Your task to perform on an android device: change the upload size in google photos Image 0: 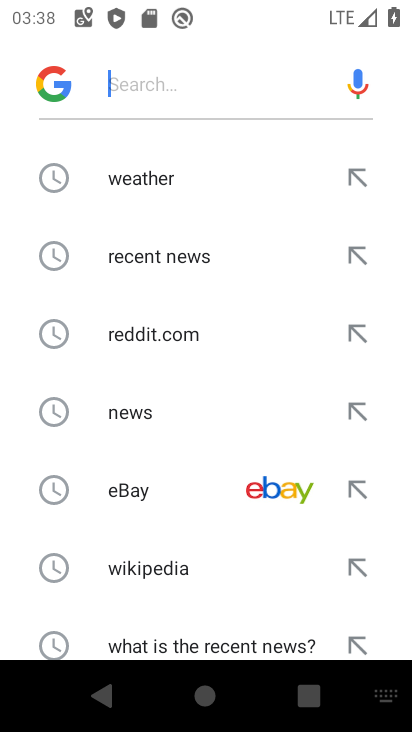
Step 0: press home button
Your task to perform on an android device: change the upload size in google photos Image 1: 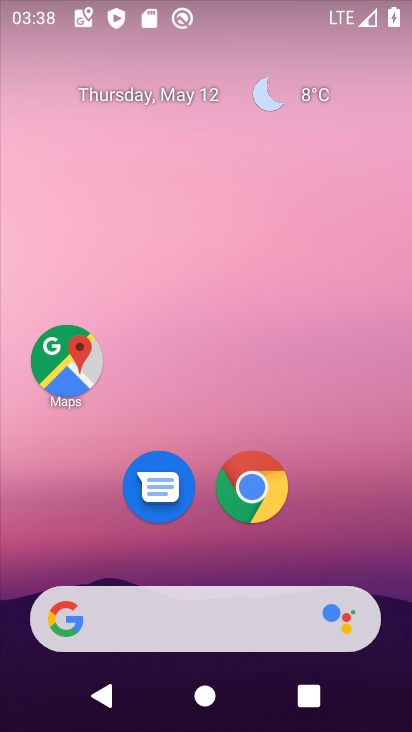
Step 1: drag from (327, 483) to (284, 30)
Your task to perform on an android device: change the upload size in google photos Image 2: 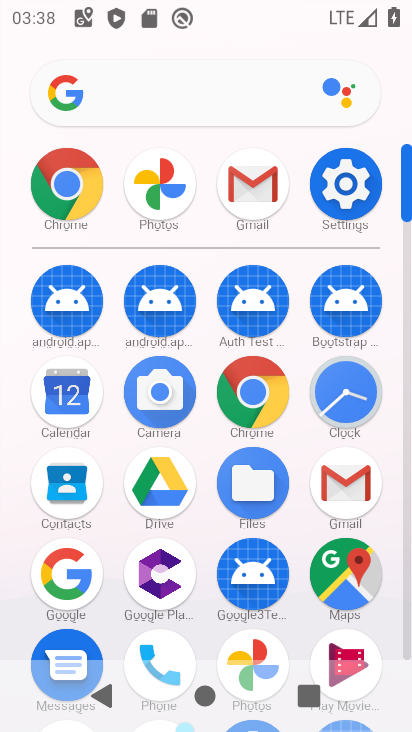
Step 2: click (151, 192)
Your task to perform on an android device: change the upload size in google photos Image 3: 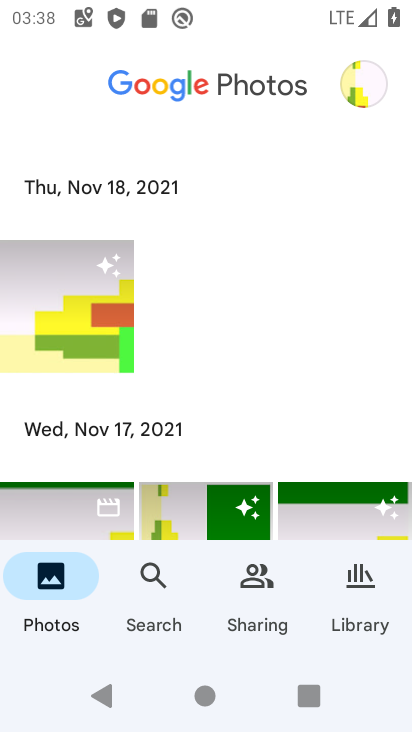
Step 3: click (375, 78)
Your task to perform on an android device: change the upload size in google photos Image 4: 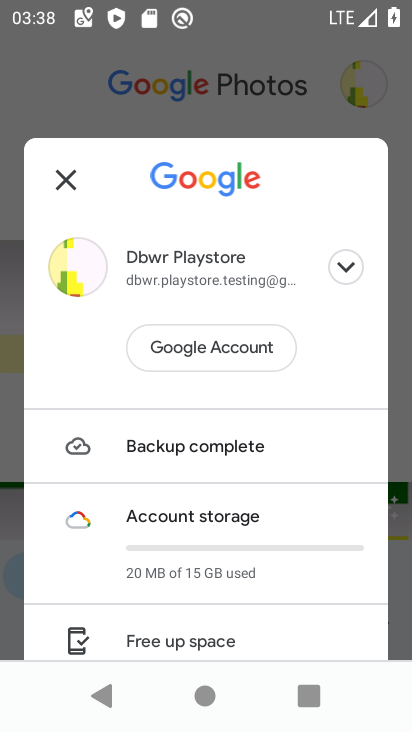
Step 4: drag from (285, 648) to (280, 136)
Your task to perform on an android device: change the upload size in google photos Image 5: 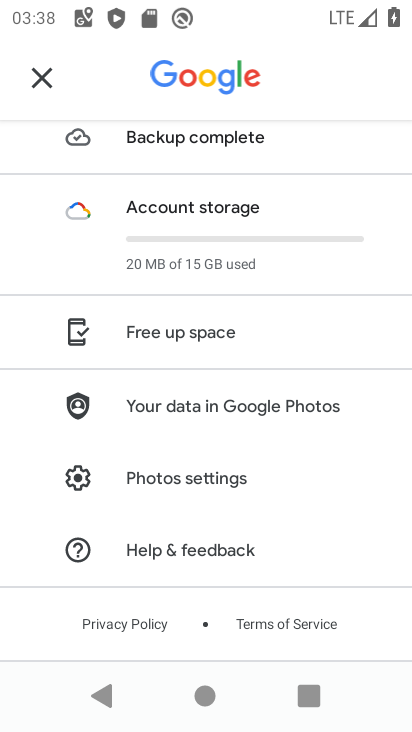
Step 5: click (194, 480)
Your task to perform on an android device: change the upload size in google photos Image 6: 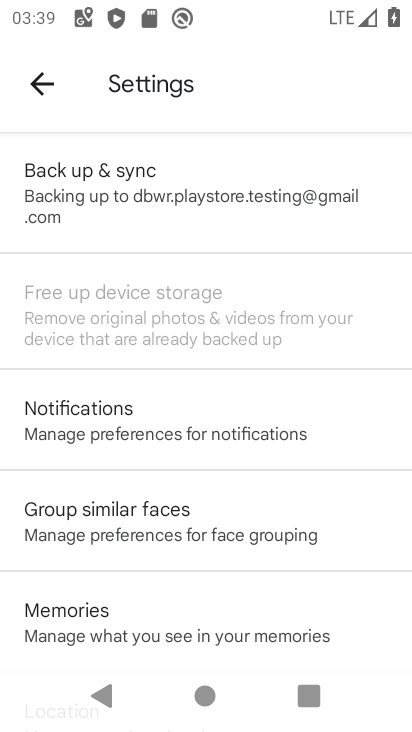
Step 6: click (147, 208)
Your task to perform on an android device: change the upload size in google photos Image 7: 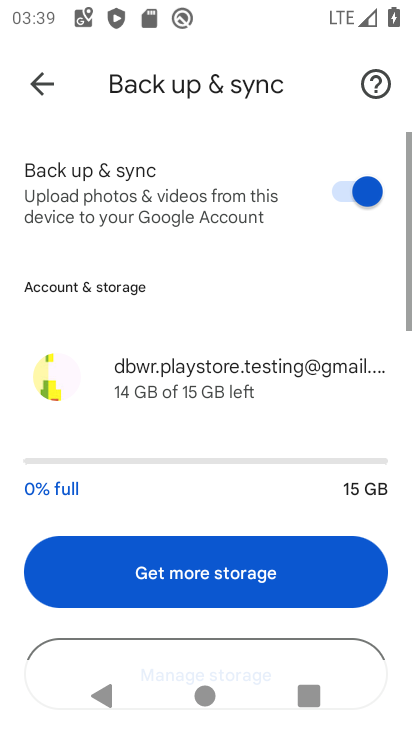
Step 7: drag from (271, 554) to (285, 50)
Your task to perform on an android device: change the upload size in google photos Image 8: 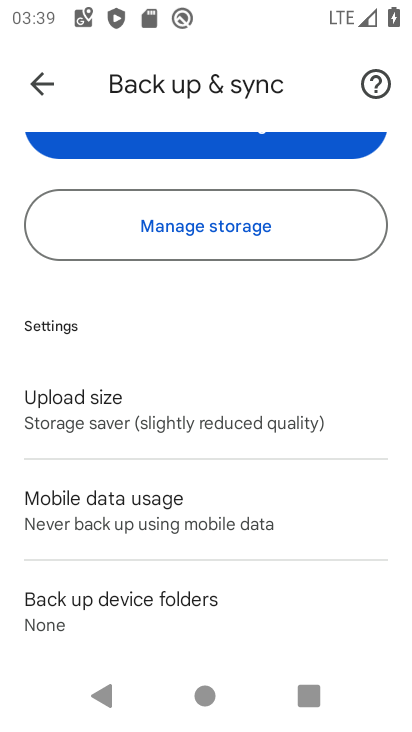
Step 8: click (165, 434)
Your task to perform on an android device: change the upload size in google photos Image 9: 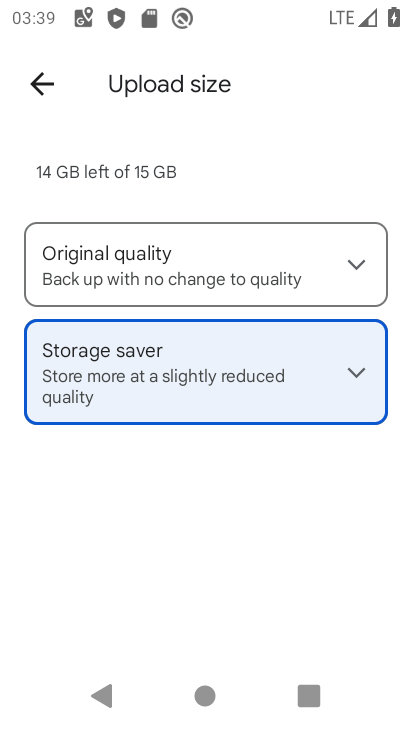
Step 9: click (254, 261)
Your task to perform on an android device: change the upload size in google photos Image 10: 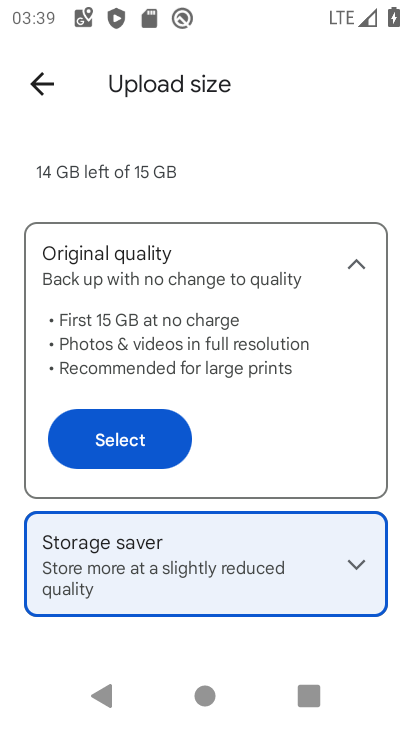
Step 10: click (144, 460)
Your task to perform on an android device: change the upload size in google photos Image 11: 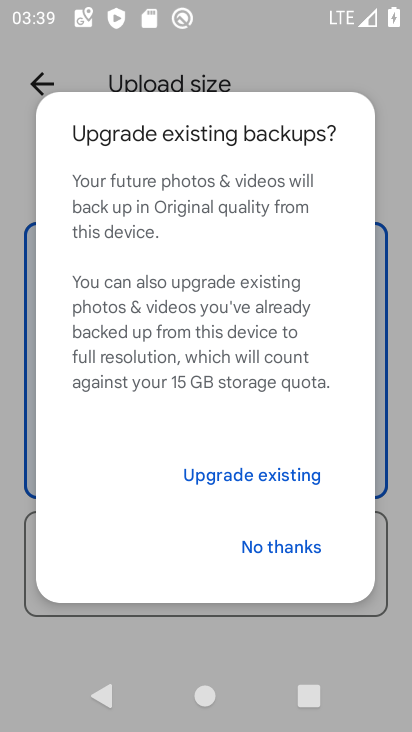
Step 11: click (280, 541)
Your task to perform on an android device: change the upload size in google photos Image 12: 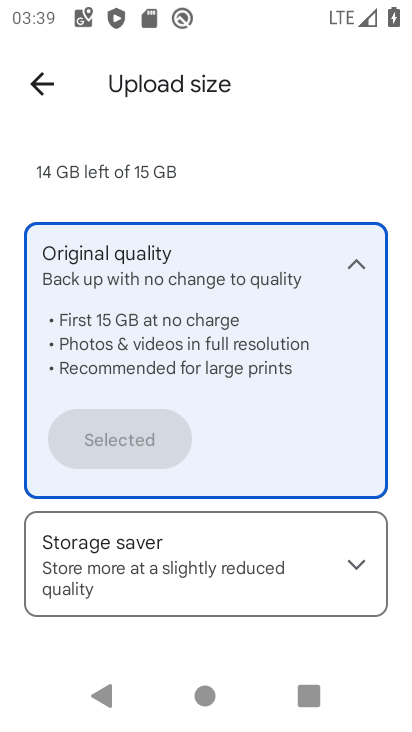
Step 12: task complete